Your task to perform on an android device: Go to internet settings Image 0: 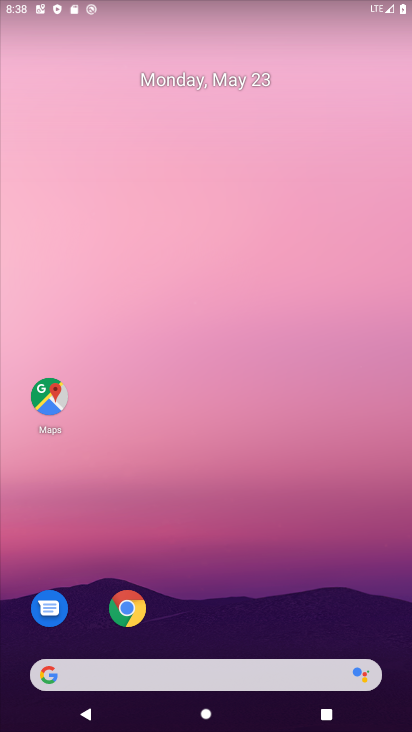
Step 0: drag from (254, 646) to (264, 248)
Your task to perform on an android device: Go to internet settings Image 1: 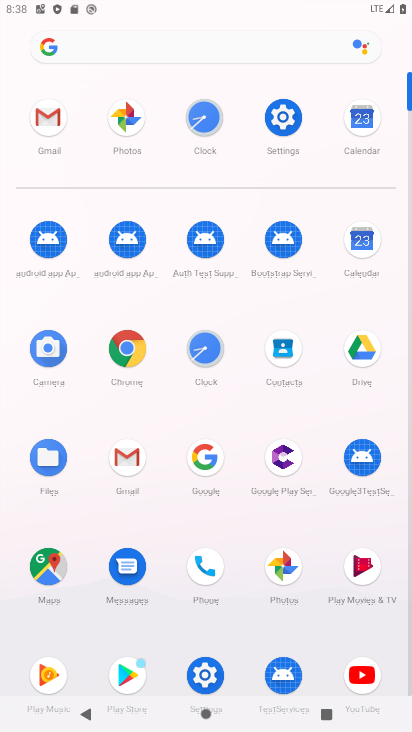
Step 1: click (212, 675)
Your task to perform on an android device: Go to internet settings Image 2: 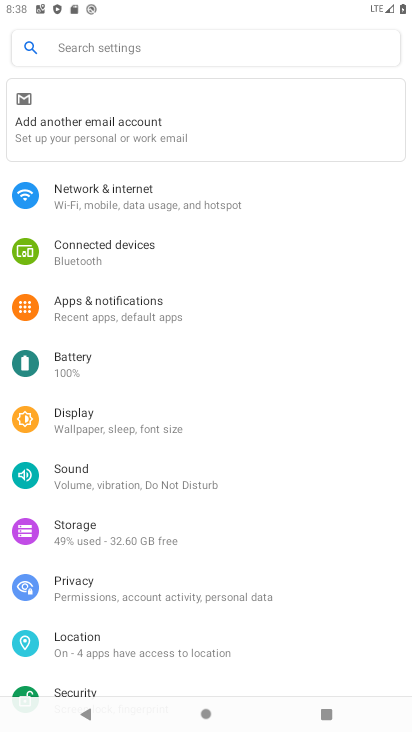
Step 2: click (78, 195)
Your task to perform on an android device: Go to internet settings Image 3: 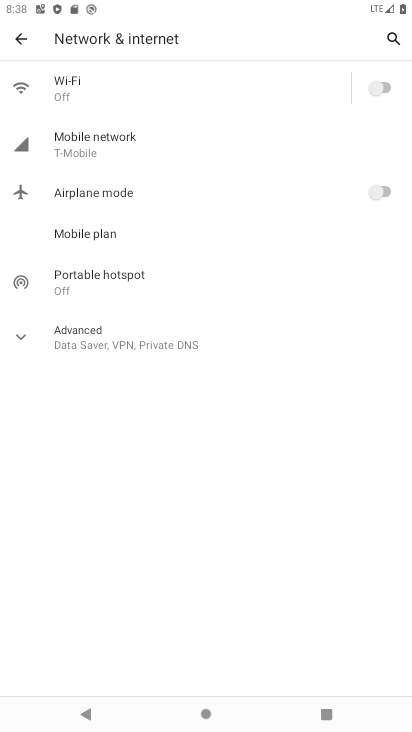
Step 3: task complete